Your task to perform on an android device: change the clock style Image 0: 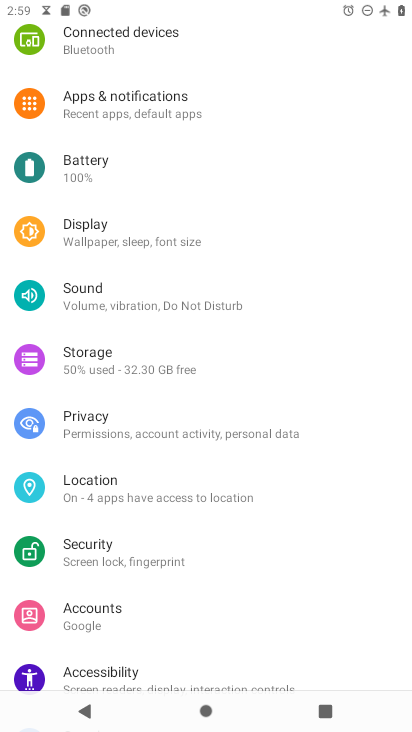
Step 0: press home button
Your task to perform on an android device: change the clock style Image 1: 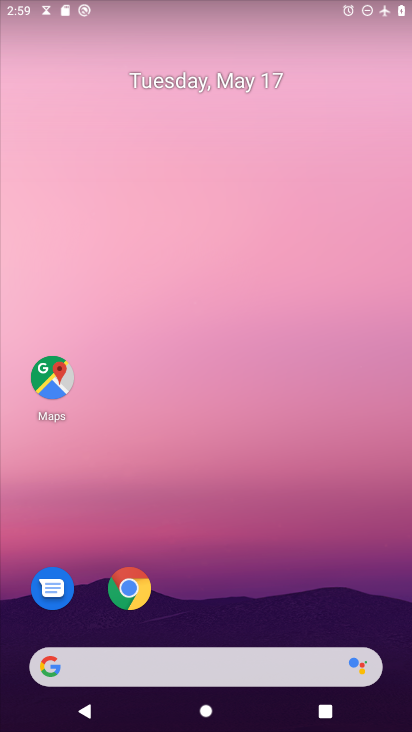
Step 1: drag from (186, 552) to (65, 72)
Your task to perform on an android device: change the clock style Image 2: 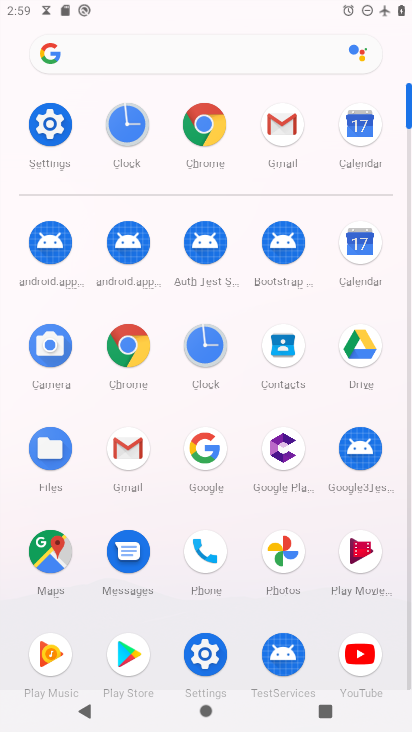
Step 2: click (137, 143)
Your task to perform on an android device: change the clock style Image 3: 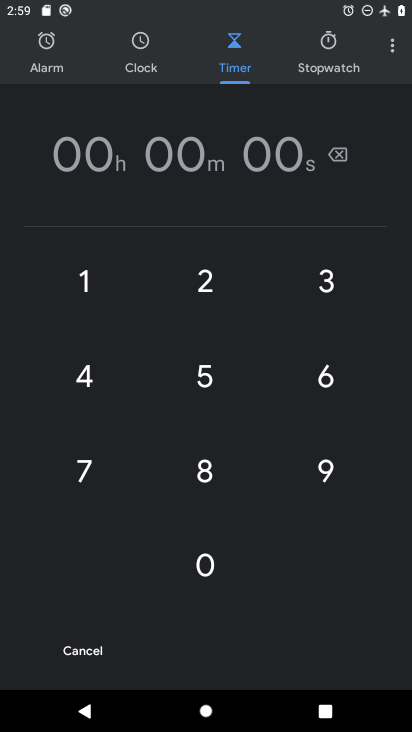
Step 3: click (395, 49)
Your task to perform on an android device: change the clock style Image 4: 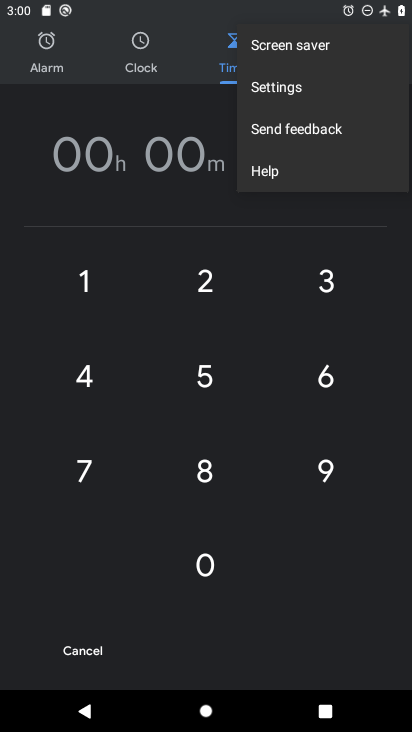
Step 4: click (277, 84)
Your task to perform on an android device: change the clock style Image 5: 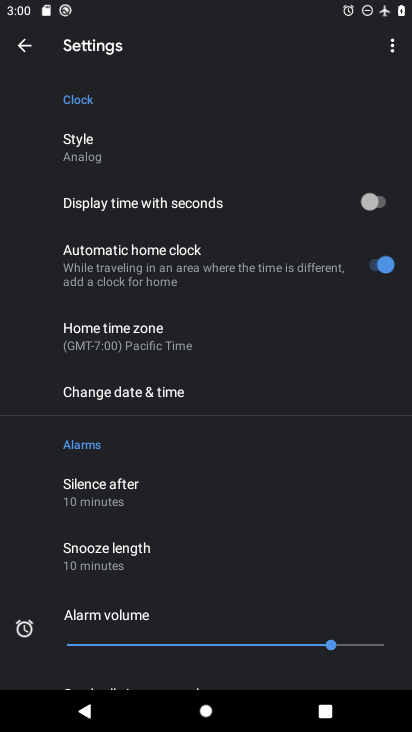
Step 5: click (76, 152)
Your task to perform on an android device: change the clock style Image 6: 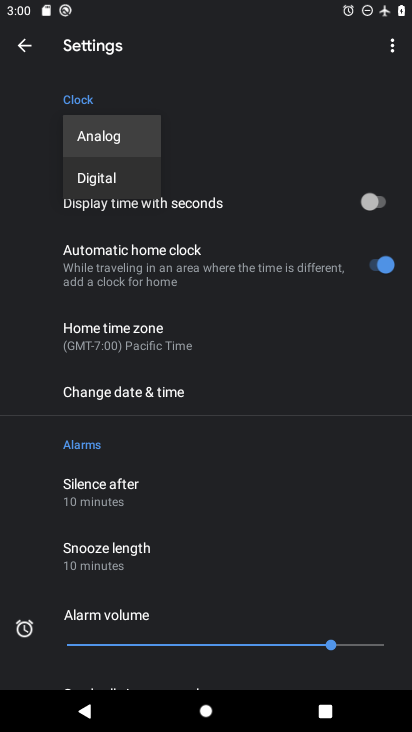
Step 6: click (123, 176)
Your task to perform on an android device: change the clock style Image 7: 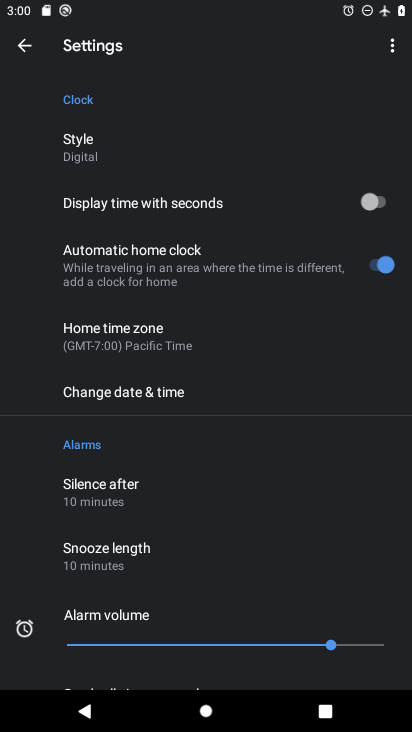
Step 7: task complete